Your task to perform on an android device: Go to wifi settings Image 0: 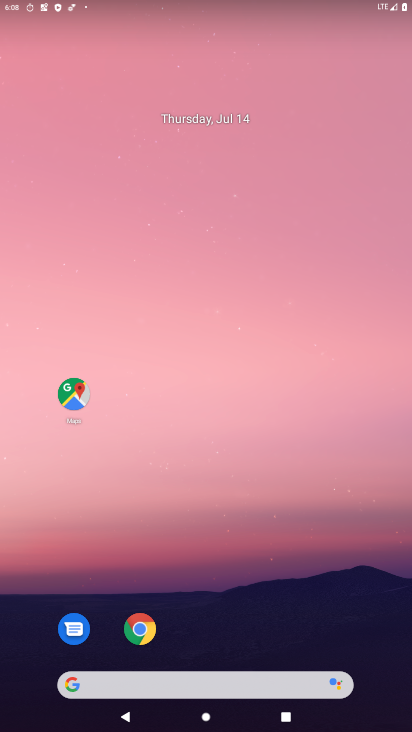
Step 0: drag from (290, 693) to (251, 73)
Your task to perform on an android device: Go to wifi settings Image 1: 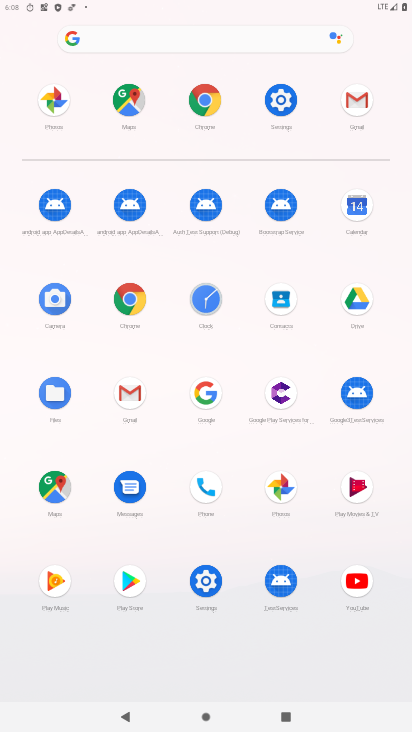
Step 1: click (282, 86)
Your task to perform on an android device: Go to wifi settings Image 2: 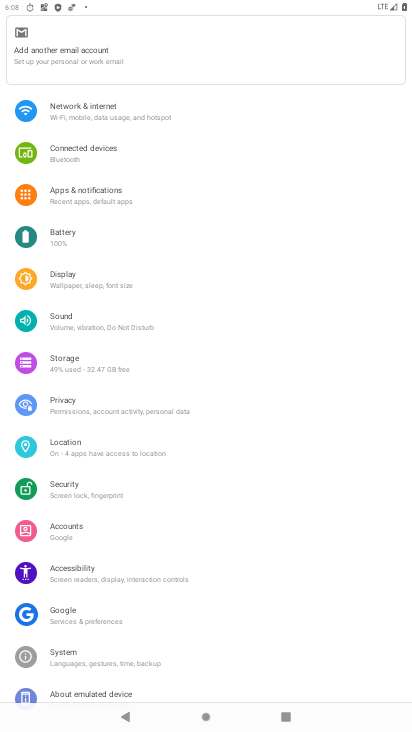
Step 2: click (141, 109)
Your task to perform on an android device: Go to wifi settings Image 3: 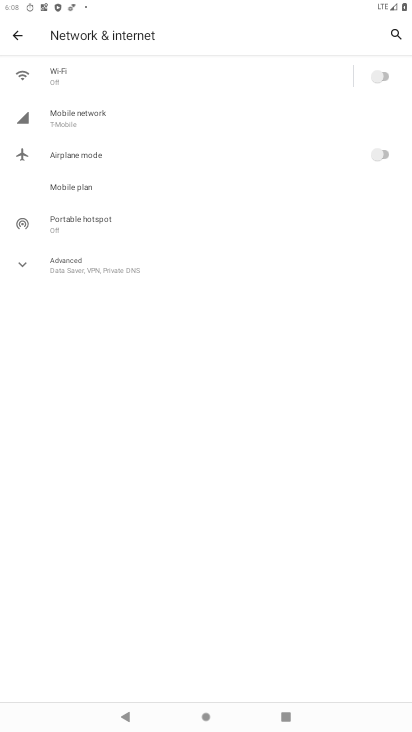
Step 3: click (76, 75)
Your task to perform on an android device: Go to wifi settings Image 4: 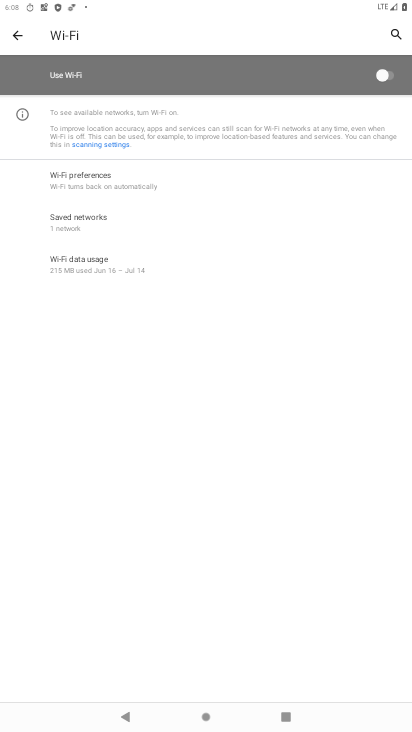
Step 4: task complete